Your task to perform on an android device: change the upload size in google photos Image 0: 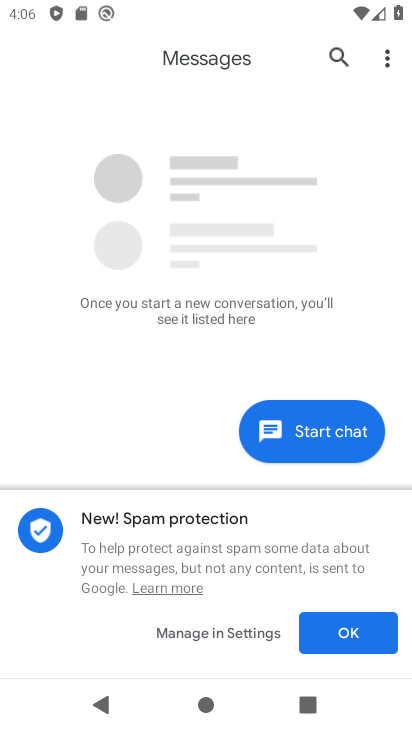
Step 0: press home button
Your task to perform on an android device: change the upload size in google photos Image 1: 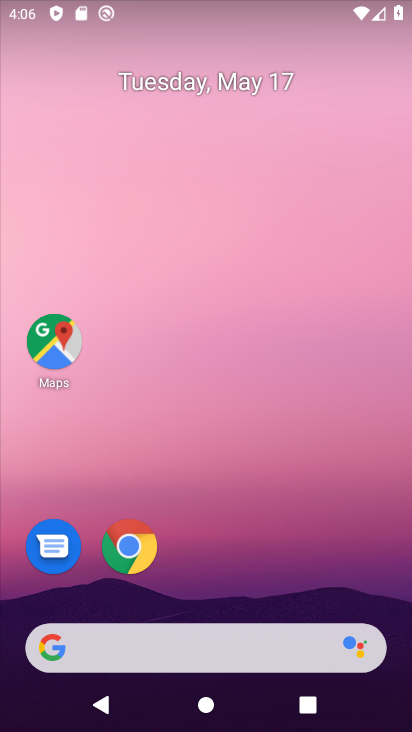
Step 1: drag from (311, 510) to (314, 266)
Your task to perform on an android device: change the upload size in google photos Image 2: 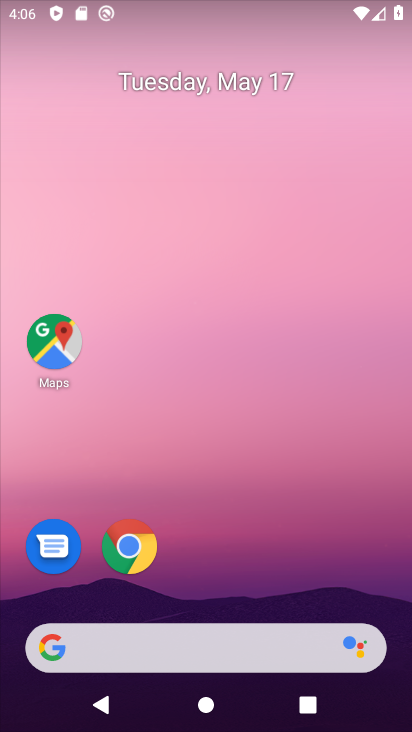
Step 2: drag from (329, 560) to (336, 171)
Your task to perform on an android device: change the upload size in google photos Image 3: 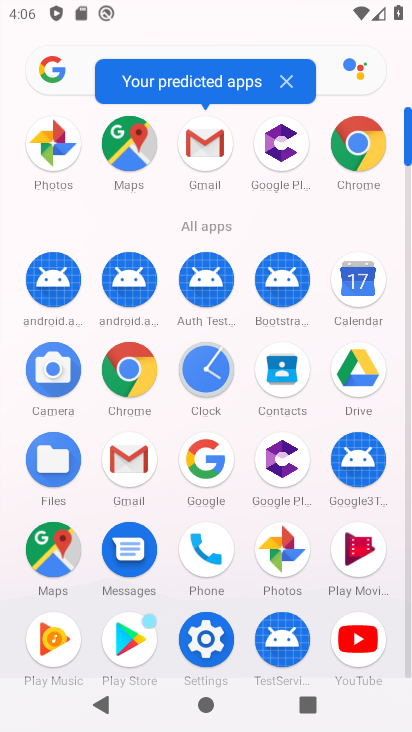
Step 3: click (46, 148)
Your task to perform on an android device: change the upload size in google photos Image 4: 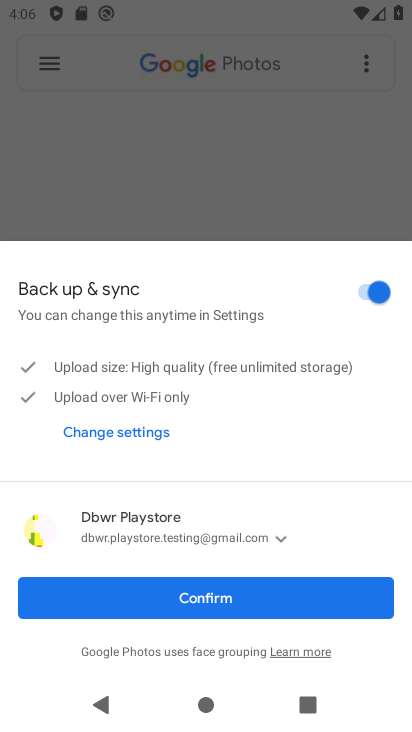
Step 4: click (199, 591)
Your task to perform on an android device: change the upload size in google photos Image 5: 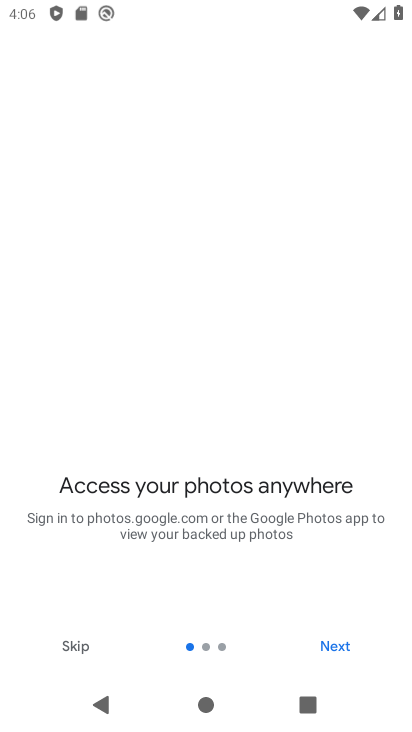
Step 5: click (320, 652)
Your task to perform on an android device: change the upload size in google photos Image 6: 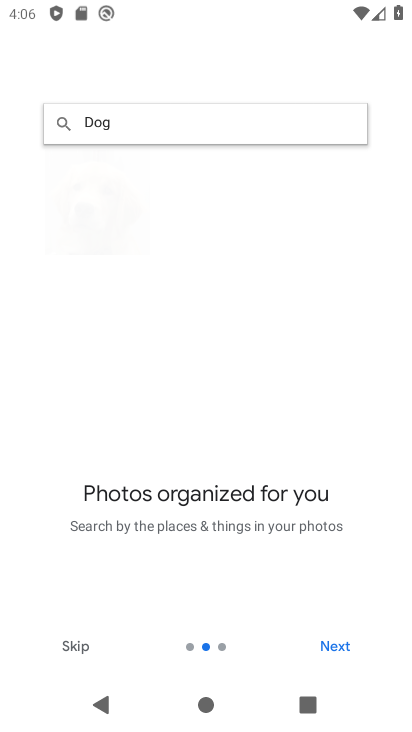
Step 6: click (320, 652)
Your task to perform on an android device: change the upload size in google photos Image 7: 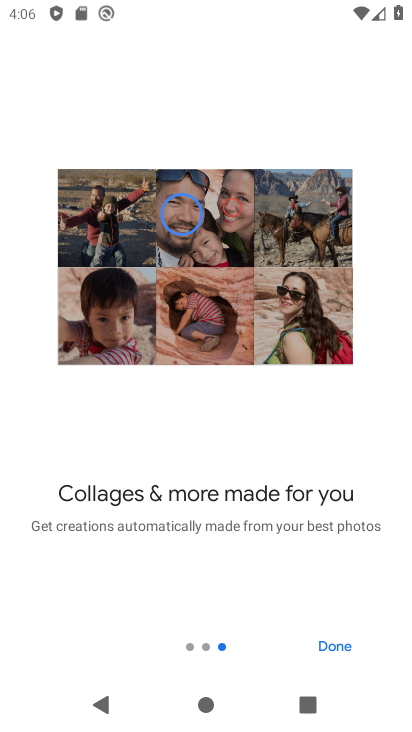
Step 7: click (320, 652)
Your task to perform on an android device: change the upload size in google photos Image 8: 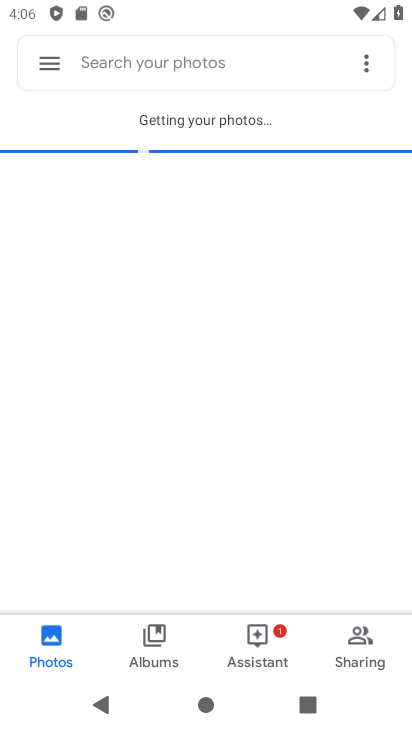
Step 8: click (52, 65)
Your task to perform on an android device: change the upload size in google photos Image 9: 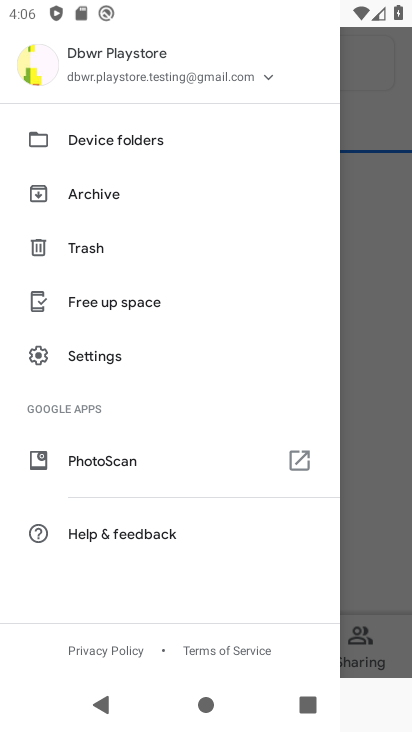
Step 9: click (98, 364)
Your task to perform on an android device: change the upload size in google photos Image 10: 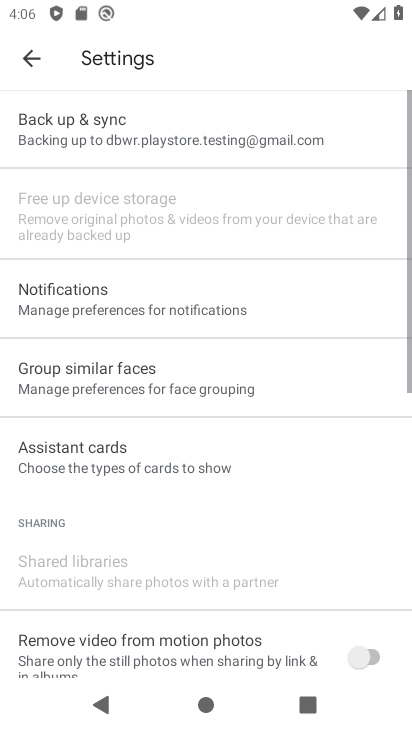
Step 10: click (119, 154)
Your task to perform on an android device: change the upload size in google photos Image 11: 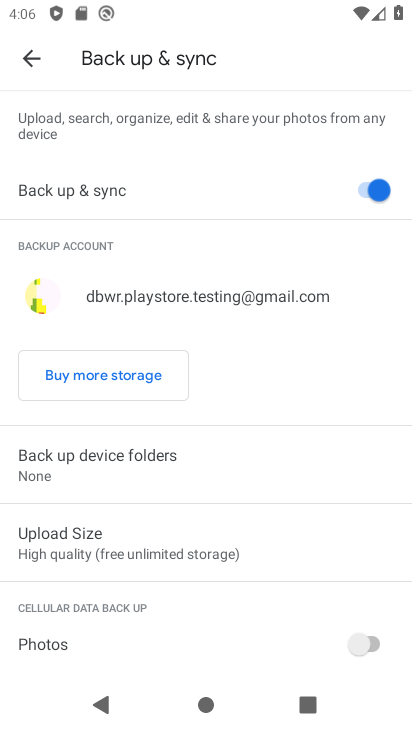
Step 11: click (128, 563)
Your task to perform on an android device: change the upload size in google photos Image 12: 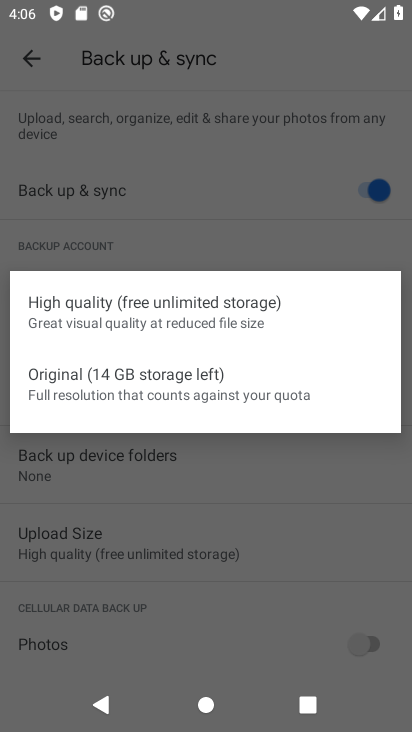
Step 12: click (136, 397)
Your task to perform on an android device: change the upload size in google photos Image 13: 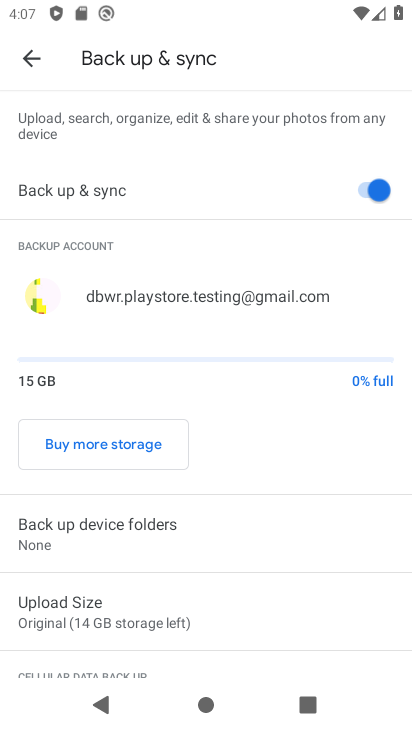
Step 13: task complete